Your task to perform on an android device: change alarm snooze length Image 0: 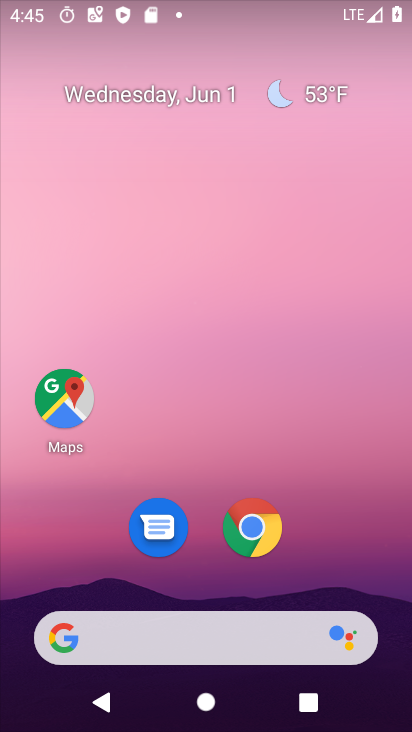
Step 0: drag from (326, 562) to (364, 52)
Your task to perform on an android device: change alarm snooze length Image 1: 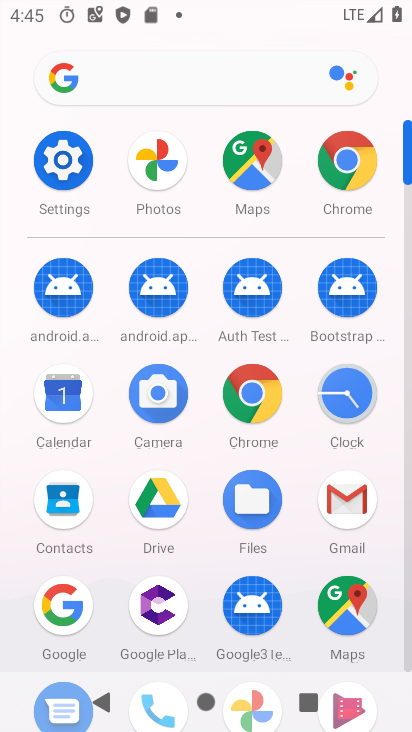
Step 1: click (344, 398)
Your task to perform on an android device: change alarm snooze length Image 2: 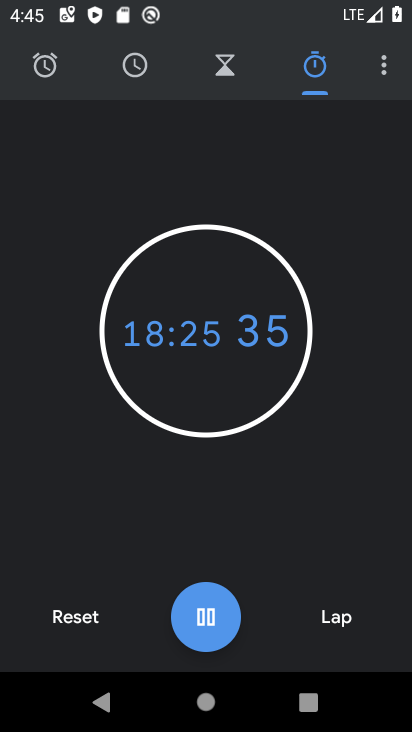
Step 2: click (38, 68)
Your task to perform on an android device: change alarm snooze length Image 3: 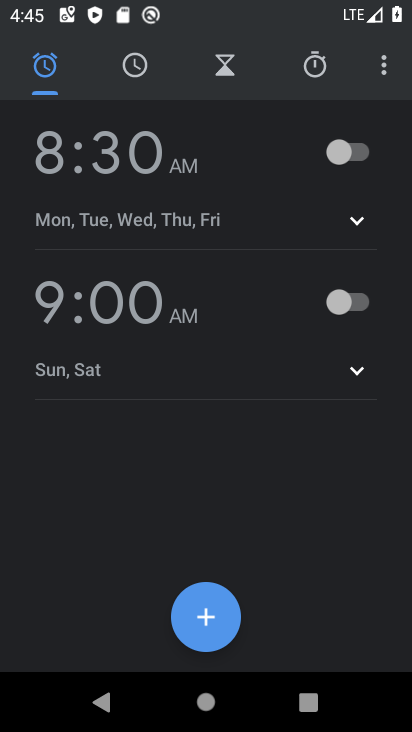
Step 3: task complete